Your task to perform on an android device: open chrome privacy settings Image 0: 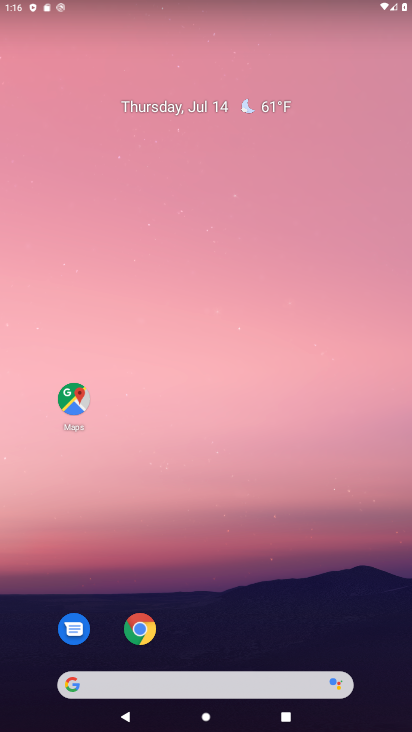
Step 0: drag from (179, 646) to (281, 96)
Your task to perform on an android device: open chrome privacy settings Image 1: 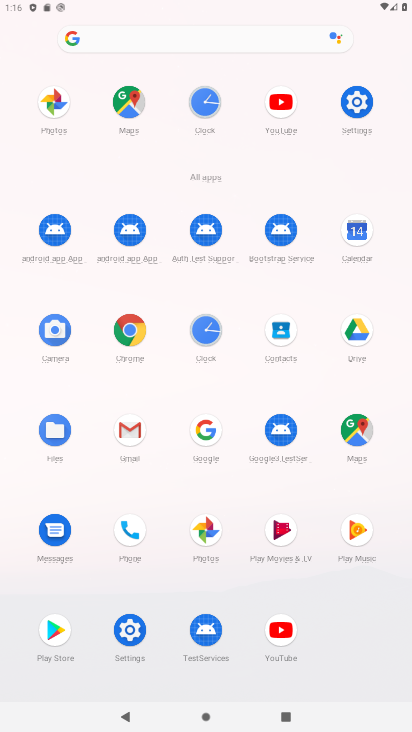
Step 1: click (128, 334)
Your task to perform on an android device: open chrome privacy settings Image 2: 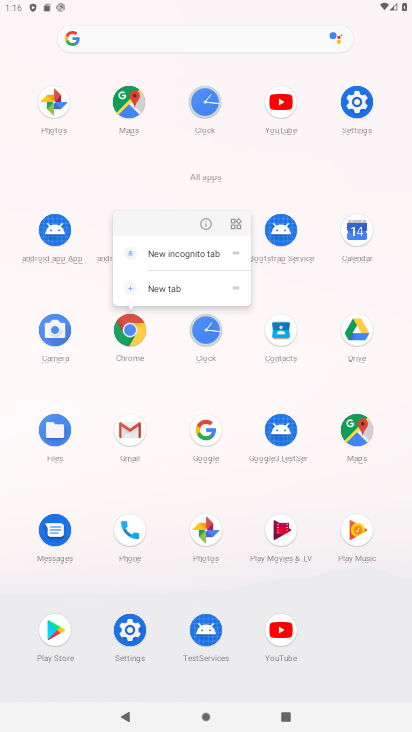
Step 2: click (209, 221)
Your task to perform on an android device: open chrome privacy settings Image 3: 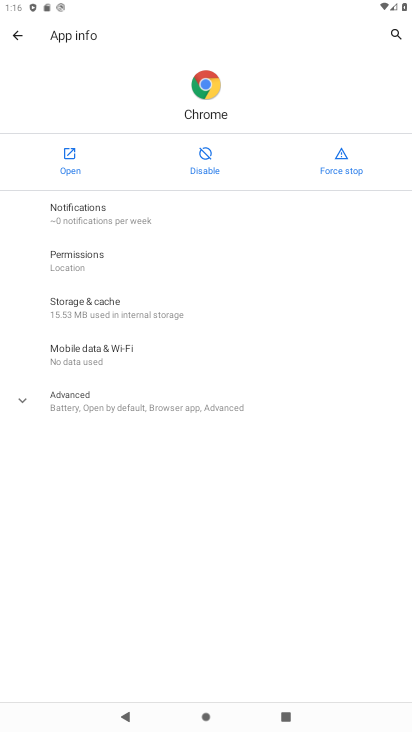
Step 3: click (81, 163)
Your task to perform on an android device: open chrome privacy settings Image 4: 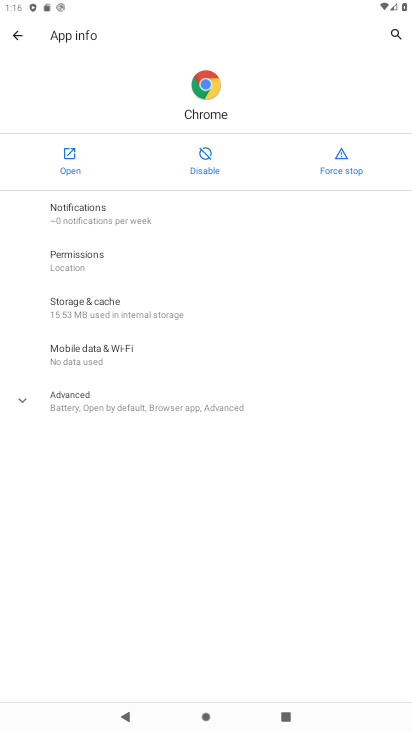
Step 4: click (81, 163)
Your task to perform on an android device: open chrome privacy settings Image 5: 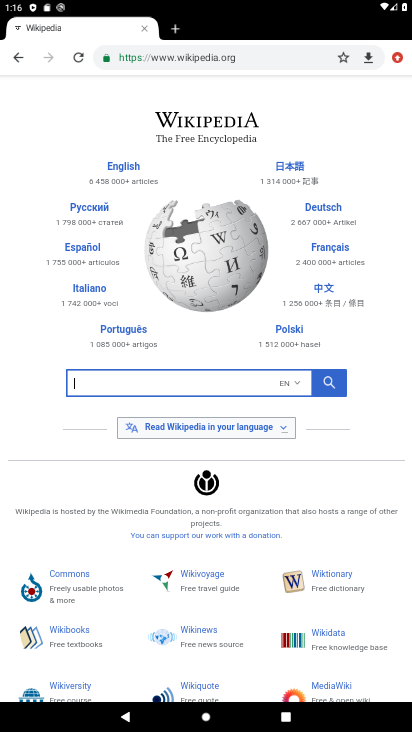
Step 5: drag from (206, 545) to (205, 258)
Your task to perform on an android device: open chrome privacy settings Image 6: 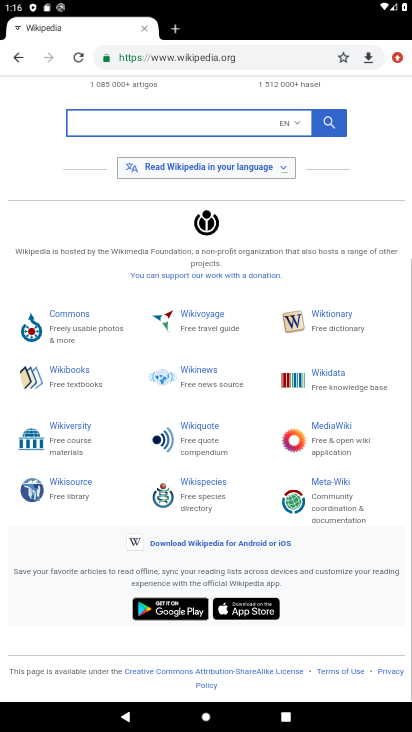
Step 6: drag from (207, 145) to (216, 609)
Your task to perform on an android device: open chrome privacy settings Image 7: 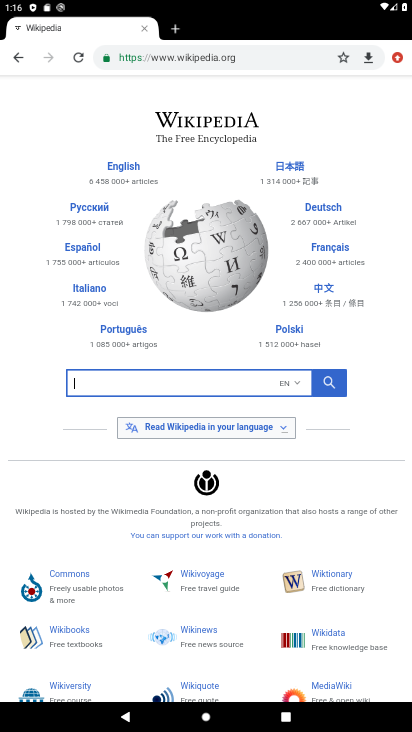
Step 7: click (397, 60)
Your task to perform on an android device: open chrome privacy settings Image 8: 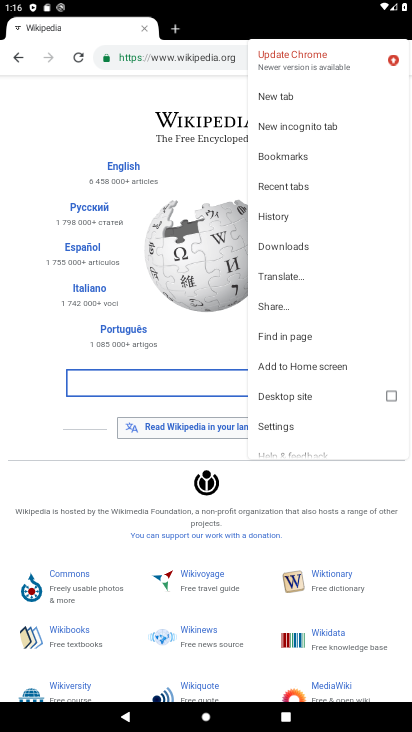
Step 8: drag from (351, 111) to (310, 96)
Your task to perform on an android device: open chrome privacy settings Image 9: 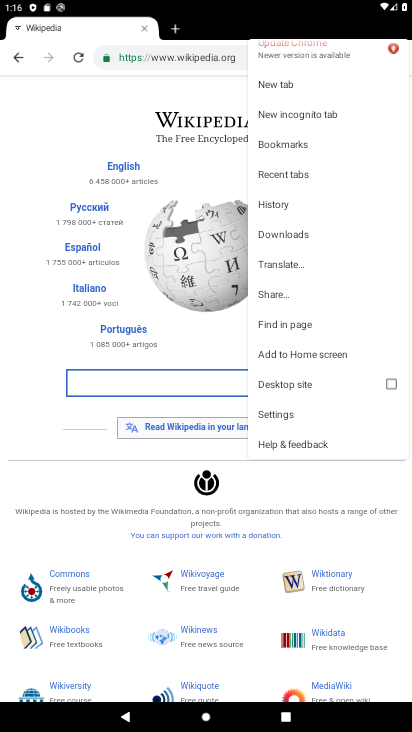
Step 9: click (297, 408)
Your task to perform on an android device: open chrome privacy settings Image 10: 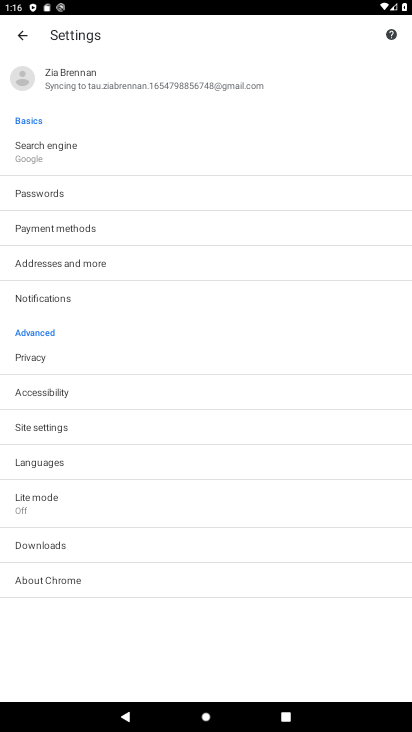
Step 10: click (114, 426)
Your task to perform on an android device: open chrome privacy settings Image 11: 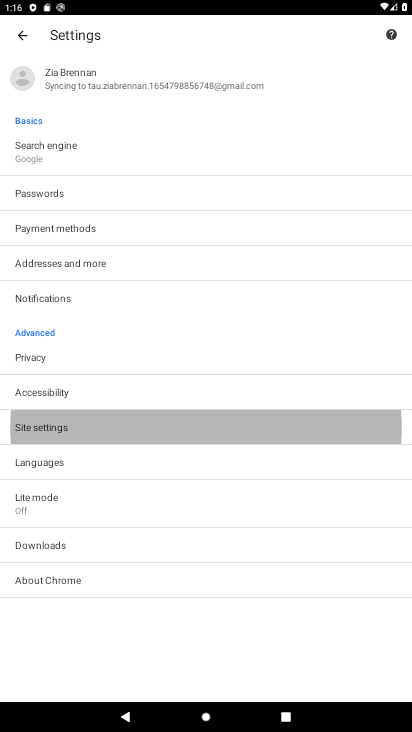
Step 11: click (114, 426)
Your task to perform on an android device: open chrome privacy settings Image 12: 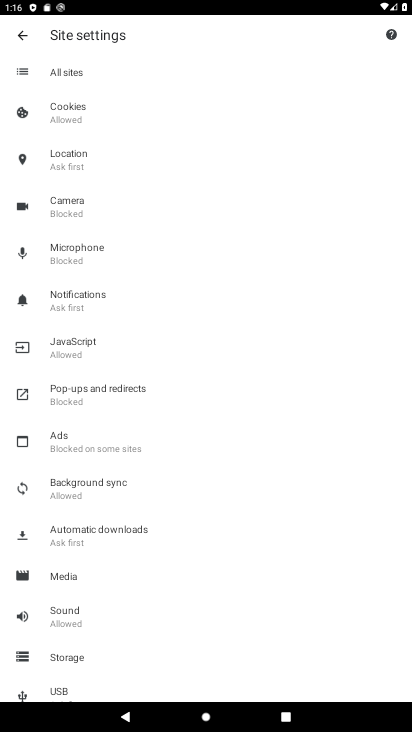
Step 12: drag from (164, 508) to (171, 237)
Your task to perform on an android device: open chrome privacy settings Image 13: 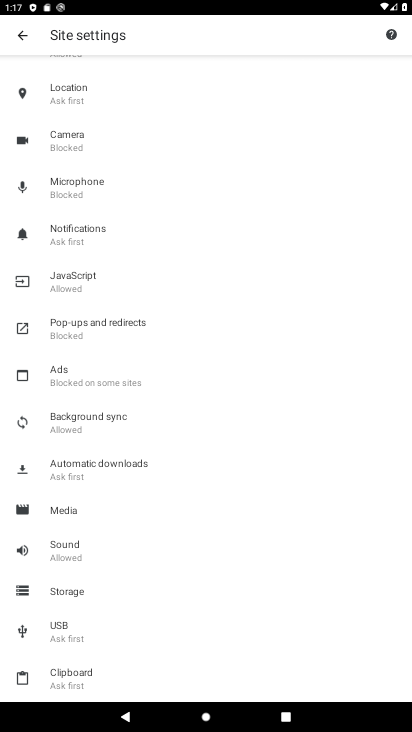
Step 13: click (25, 35)
Your task to perform on an android device: open chrome privacy settings Image 14: 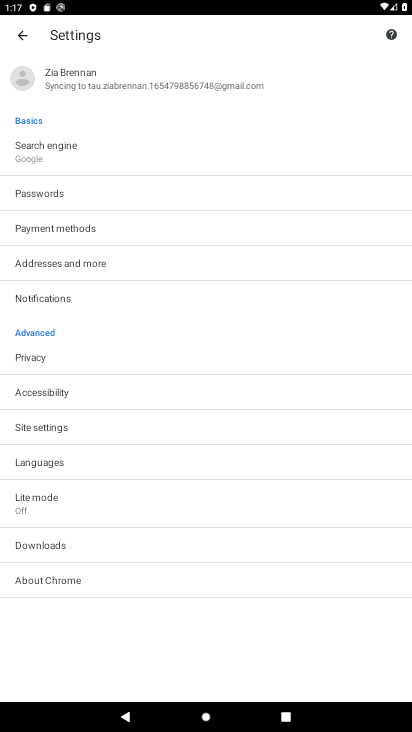
Step 14: click (45, 356)
Your task to perform on an android device: open chrome privacy settings Image 15: 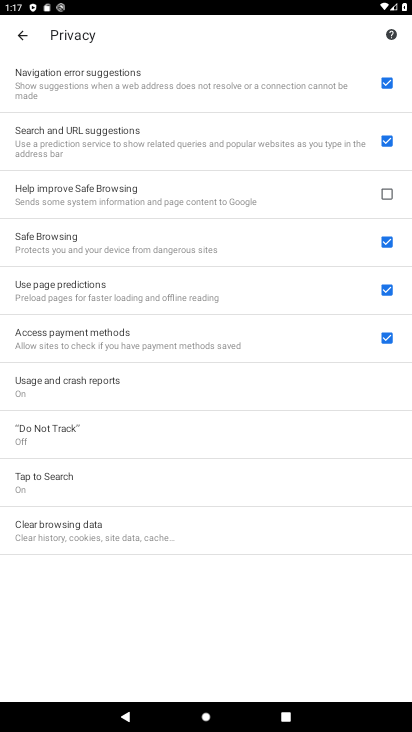
Step 15: task complete